Your task to perform on an android device: create a new album in the google photos Image 0: 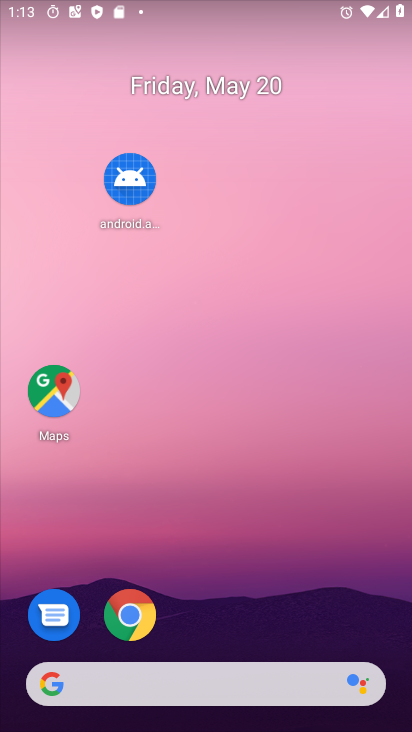
Step 0: drag from (318, 593) to (206, 0)
Your task to perform on an android device: create a new album in the google photos Image 1: 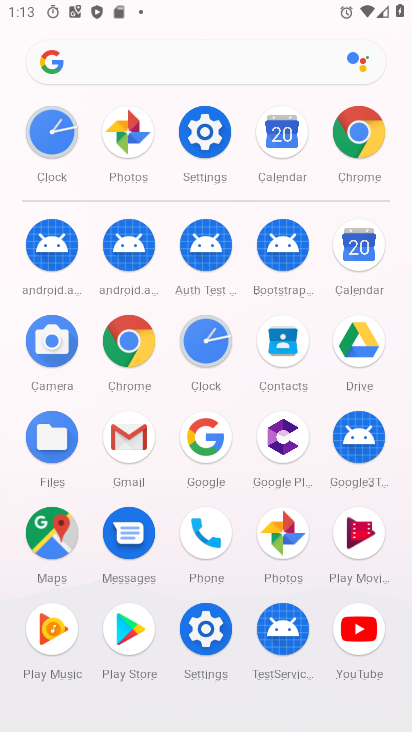
Step 1: click (295, 536)
Your task to perform on an android device: create a new album in the google photos Image 2: 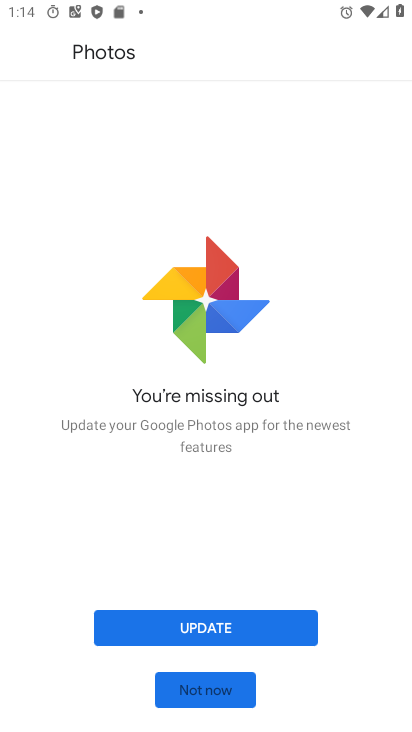
Step 2: click (219, 680)
Your task to perform on an android device: create a new album in the google photos Image 3: 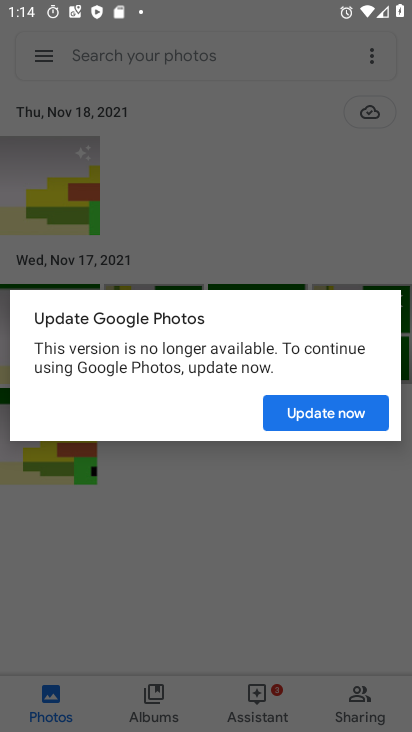
Step 3: click (357, 403)
Your task to perform on an android device: create a new album in the google photos Image 4: 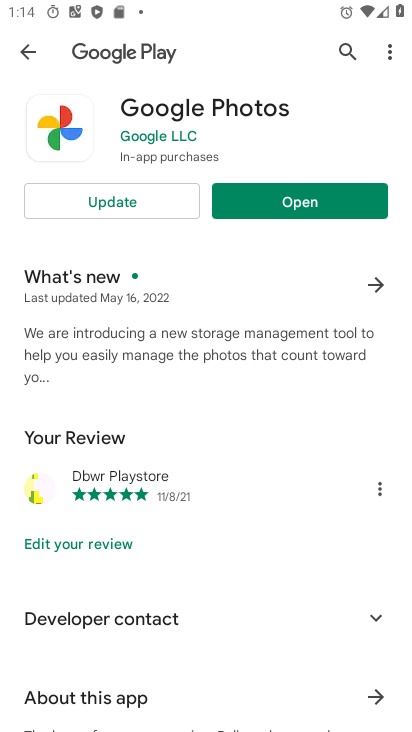
Step 4: click (306, 210)
Your task to perform on an android device: create a new album in the google photos Image 5: 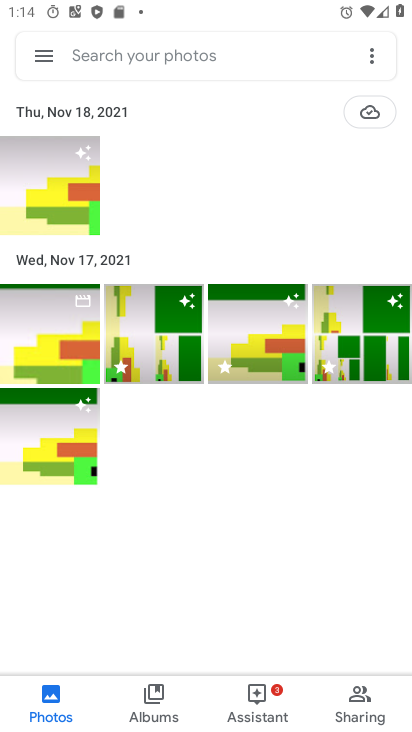
Step 5: click (140, 360)
Your task to perform on an android device: create a new album in the google photos Image 6: 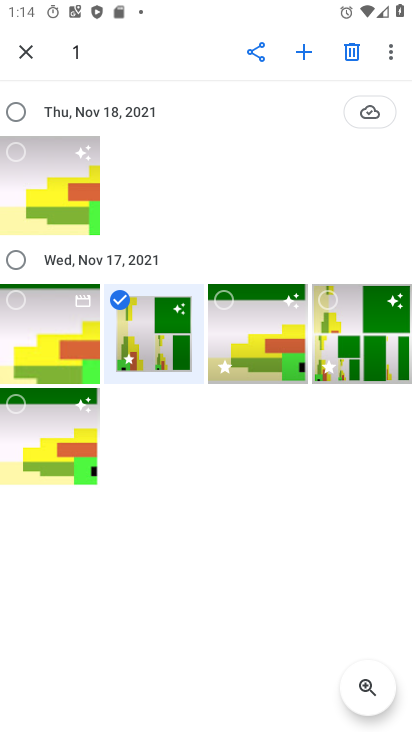
Step 6: click (260, 347)
Your task to perform on an android device: create a new album in the google photos Image 7: 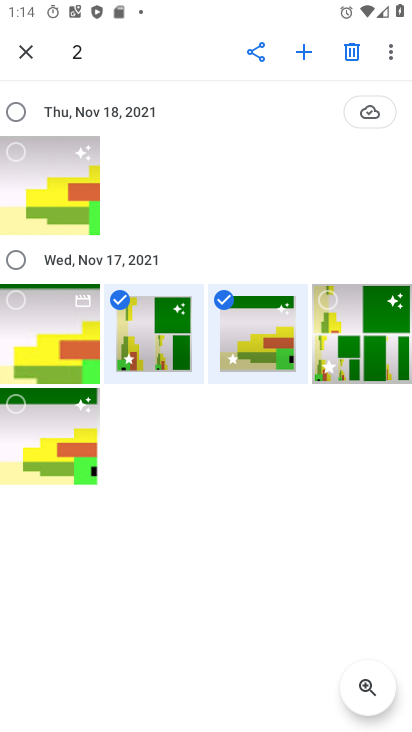
Step 7: click (386, 310)
Your task to perform on an android device: create a new album in the google photos Image 8: 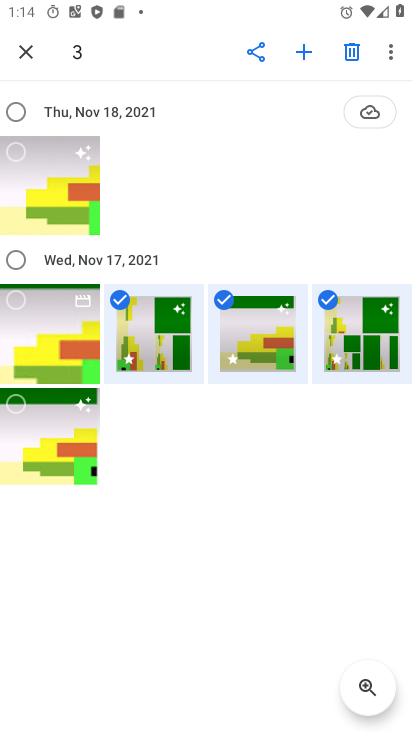
Step 8: click (308, 53)
Your task to perform on an android device: create a new album in the google photos Image 9: 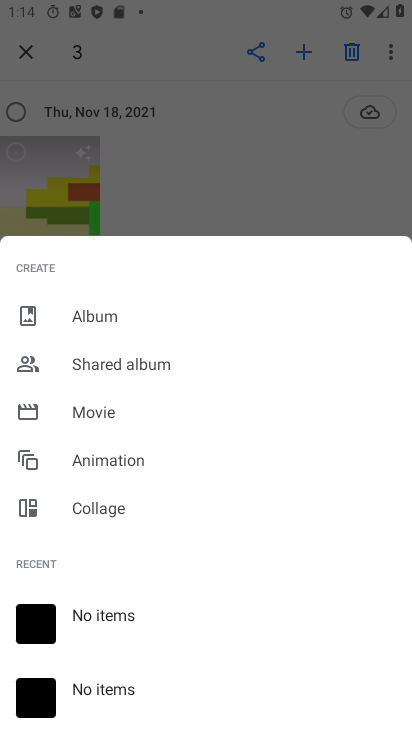
Step 9: click (204, 297)
Your task to perform on an android device: create a new album in the google photos Image 10: 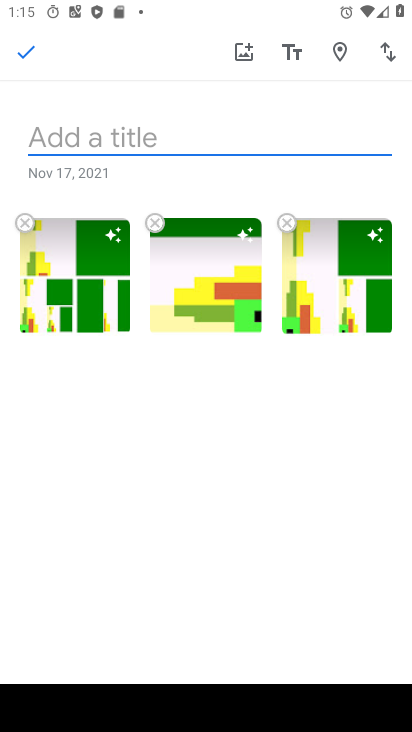
Step 10: type "ffddss"
Your task to perform on an android device: create a new album in the google photos Image 11: 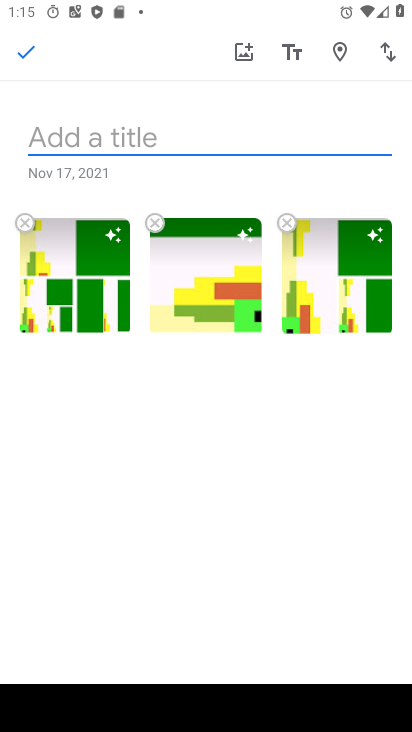
Step 11: click (18, 52)
Your task to perform on an android device: create a new album in the google photos Image 12: 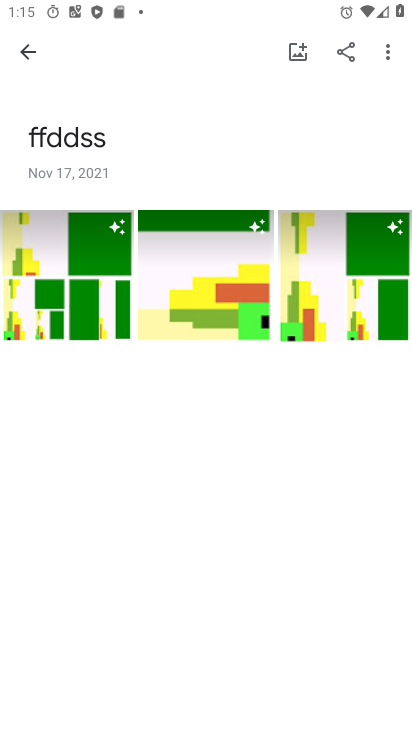
Step 12: task complete